Your task to perform on an android device: Open calendar and show me the first week of next month Image 0: 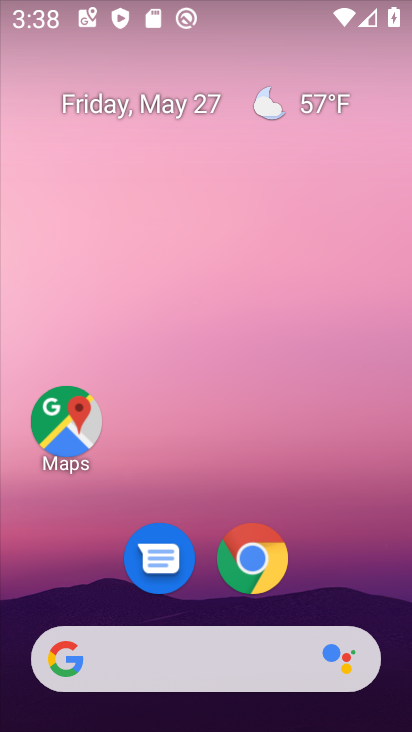
Step 0: drag from (344, 599) to (313, 140)
Your task to perform on an android device: Open calendar and show me the first week of next month Image 1: 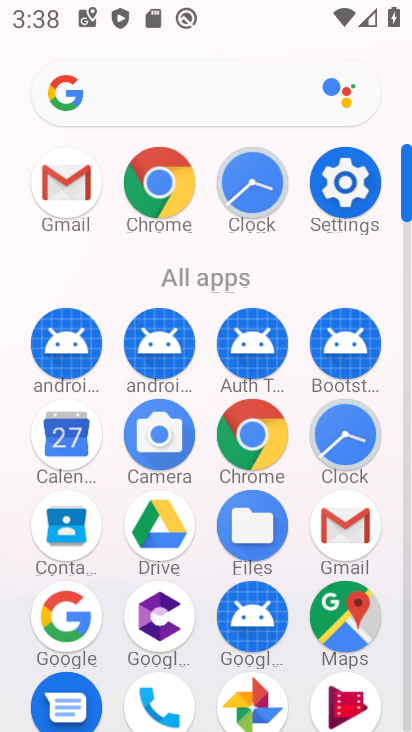
Step 1: click (76, 443)
Your task to perform on an android device: Open calendar and show me the first week of next month Image 2: 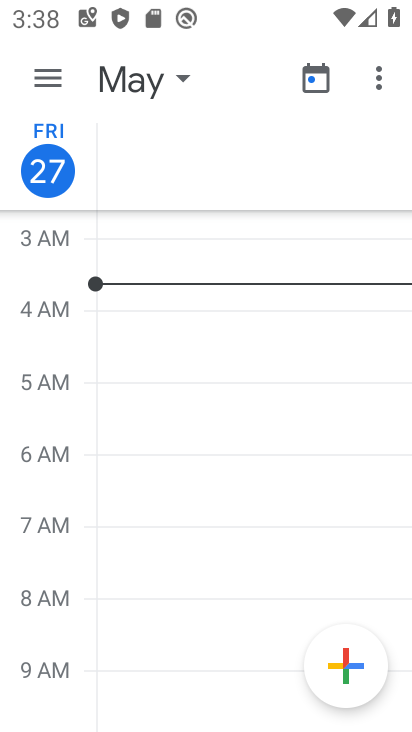
Step 2: click (141, 88)
Your task to perform on an android device: Open calendar and show me the first week of next month Image 3: 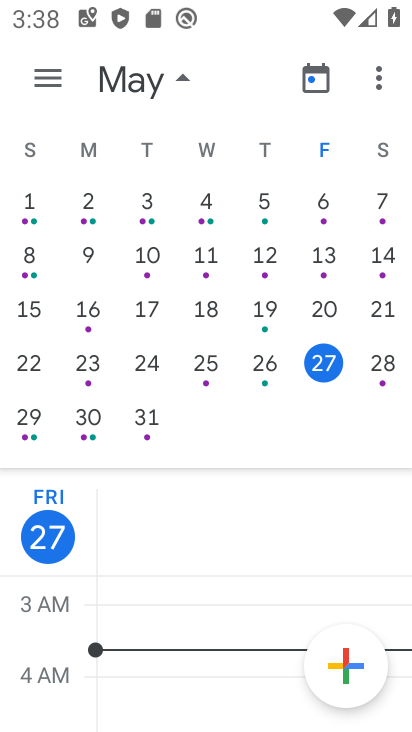
Step 3: task complete